Your task to perform on an android device: Find coffee shops on Maps Image 0: 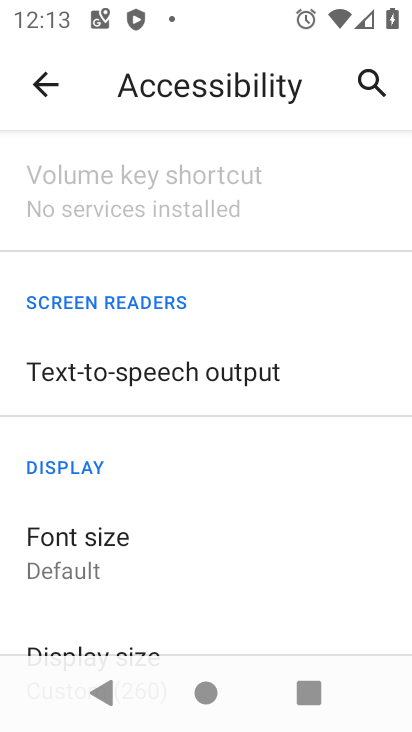
Step 0: press home button
Your task to perform on an android device: Find coffee shops on Maps Image 1: 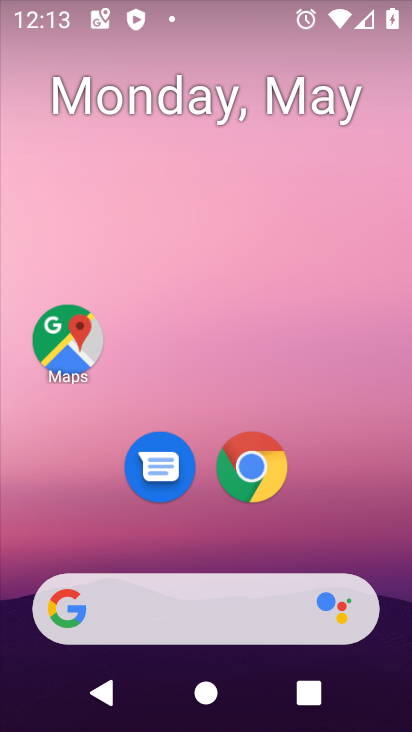
Step 1: drag from (393, 625) to (204, 53)
Your task to perform on an android device: Find coffee shops on Maps Image 2: 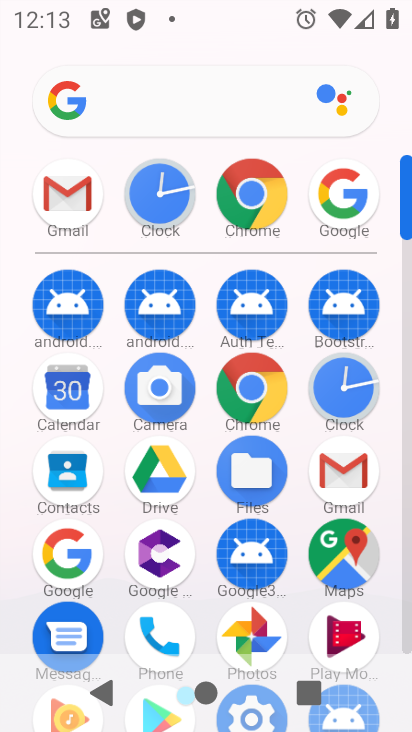
Step 2: click (327, 545)
Your task to perform on an android device: Find coffee shops on Maps Image 3: 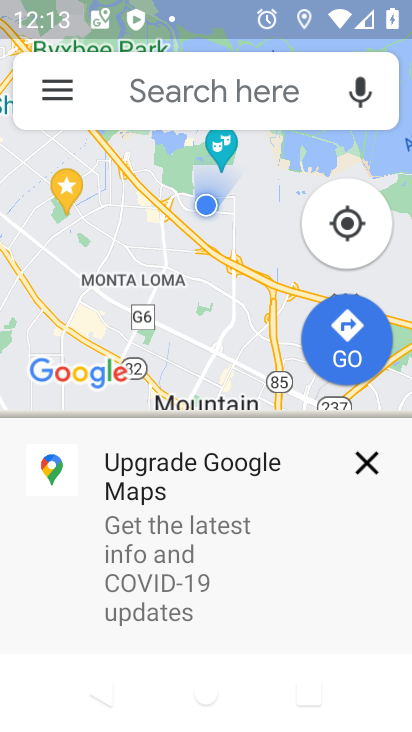
Step 3: click (230, 87)
Your task to perform on an android device: Find coffee shops on Maps Image 4: 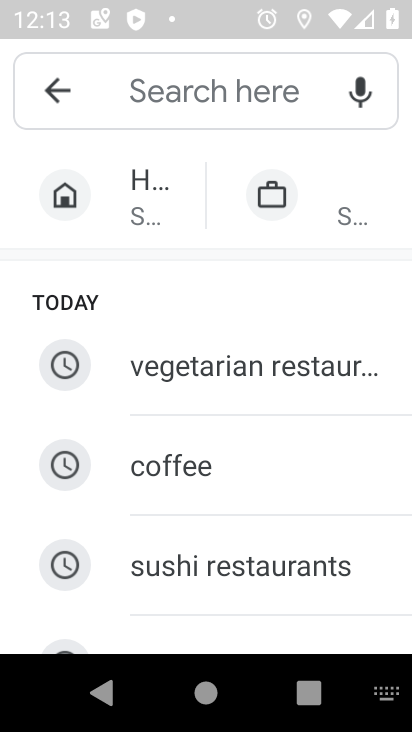
Step 4: click (249, 468)
Your task to perform on an android device: Find coffee shops on Maps Image 5: 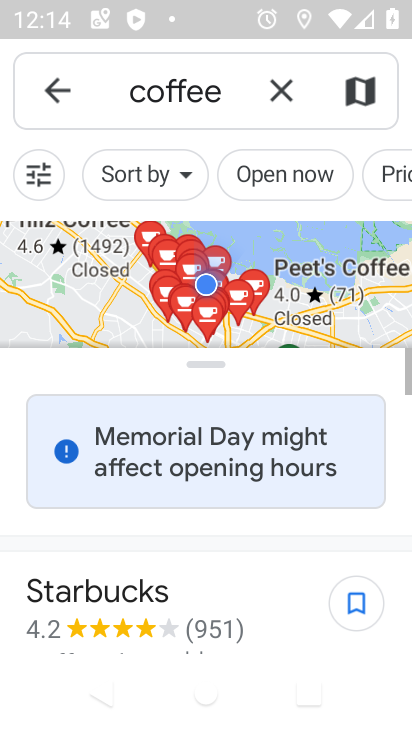
Step 5: task complete